Your task to perform on an android device: When is my next meeting? Image 0: 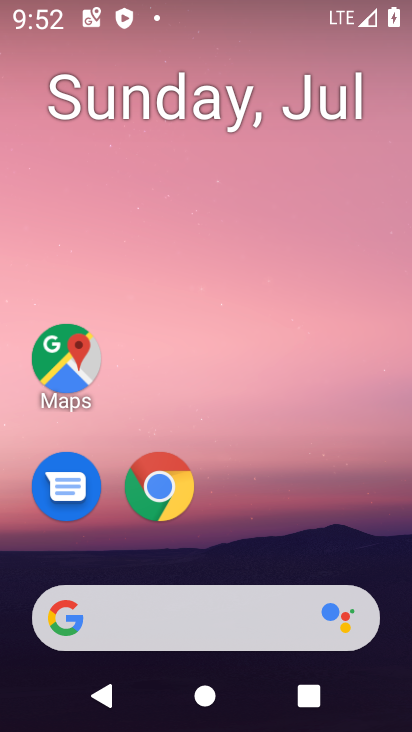
Step 0: press home button
Your task to perform on an android device: When is my next meeting? Image 1: 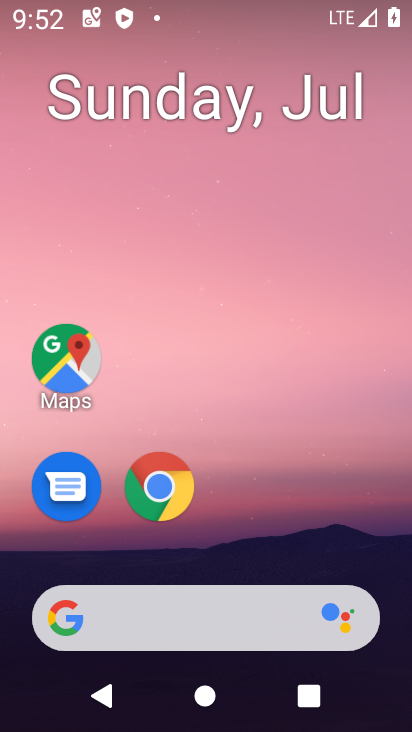
Step 1: drag from (363, 515) to (359, 51)
Your task to perform on an android device: When is my next meeting? Image 2: 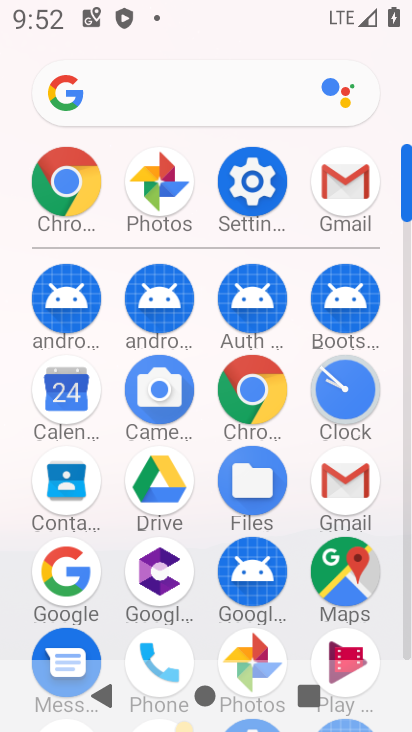
Step 2: click (62, 404)
Your task to perform on an android device: When is my next meeting? Image 3: 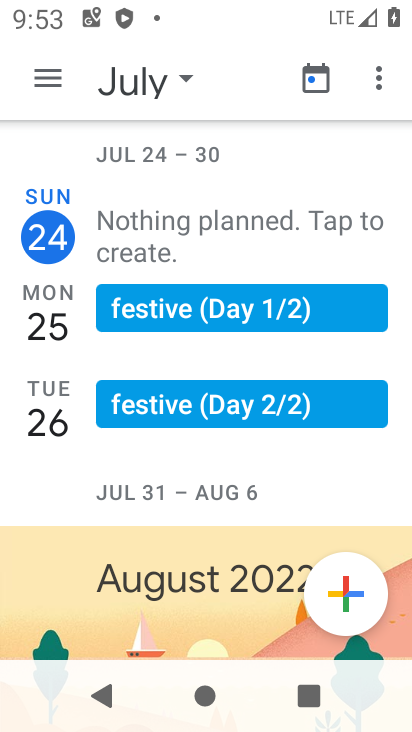
Step 3: click (200, 311)
Your task to perform on an android device: When is my next meeting? Image 4: 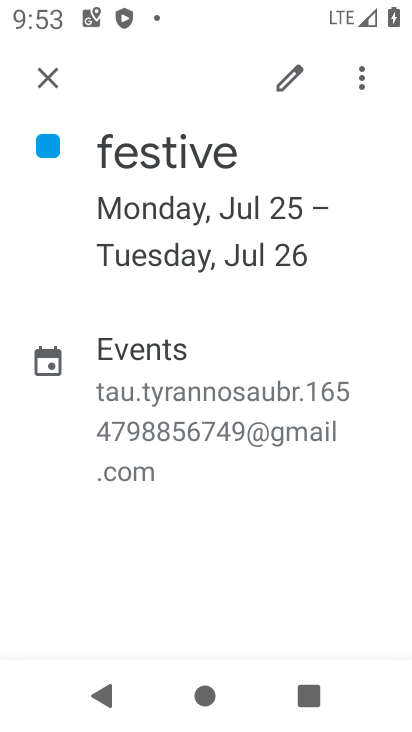
Step 4: task complete